Your task to perform on an android device: Open Reddit.com Image 0: 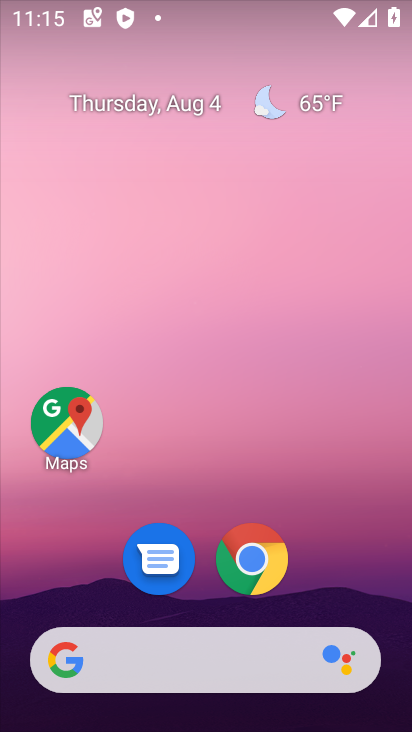
Step 0: click (273, 558)
Your task to perform on an android device: Open Reddit.com Image 1: 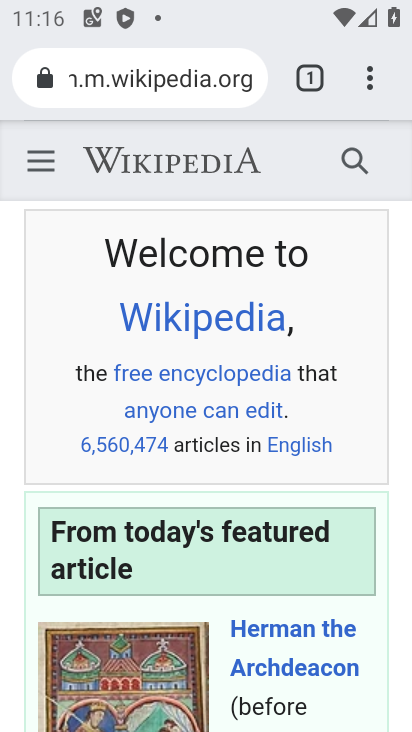
Step 1: click (226, 86)
Your task to perform on an android device: Open Reddit.com Image 2: 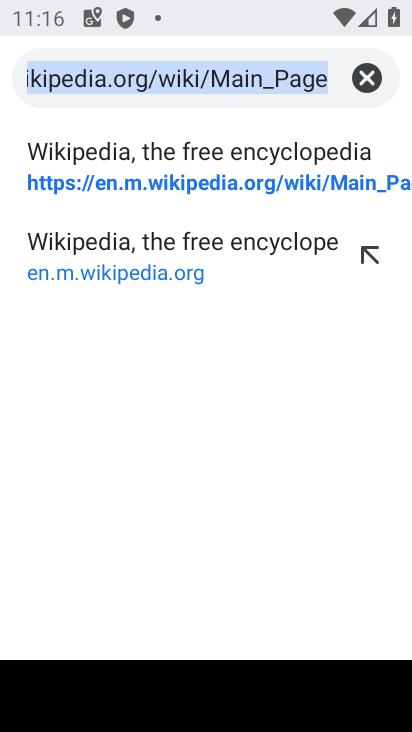
Step 2: click (366, 81)
Your task to perform on an android device: Open Reddit.com Image 3: 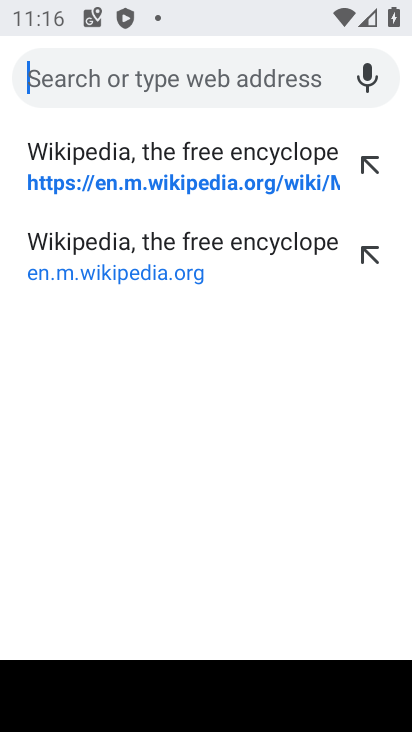
Step 3: type "reddit.com"
Your task to perform on an android device: Open Reddit.com Image 4: 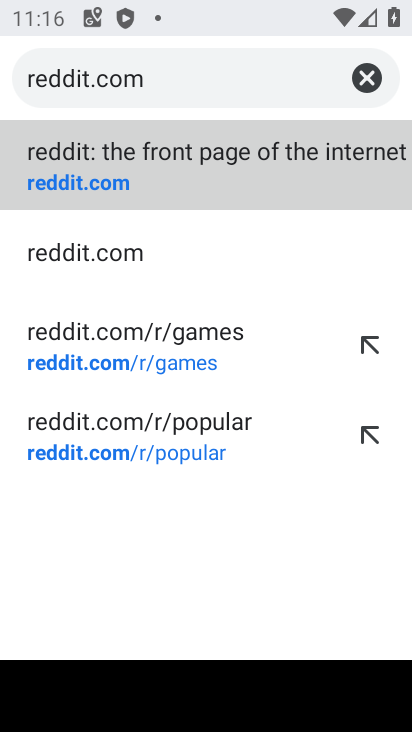
Step 4: click (227, 161)
Your task to perform on an android device: Open Reddit.com Image 5: 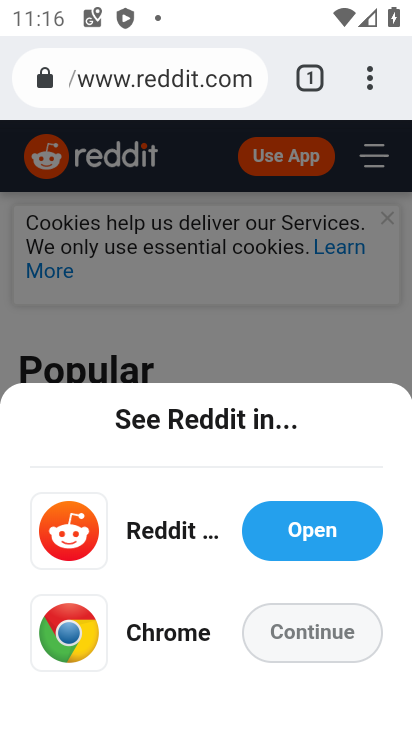
Step 5: task complete